Your task to perform on an android device: turn off location Image 0: 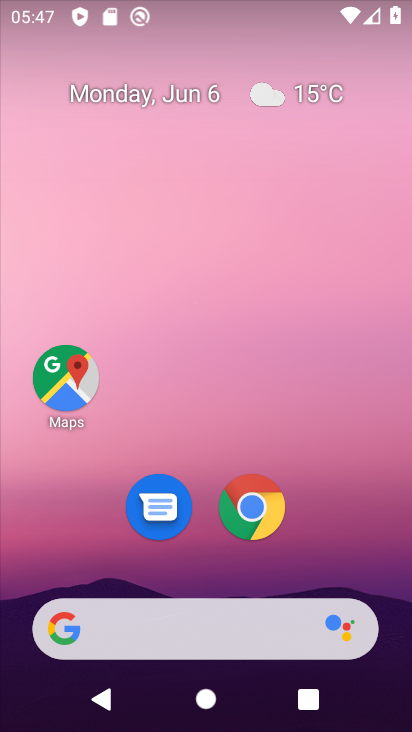
Step 0: drag from (193, 568) to (221, 0)
Your task to perform on an android device: turn off location Image 1: 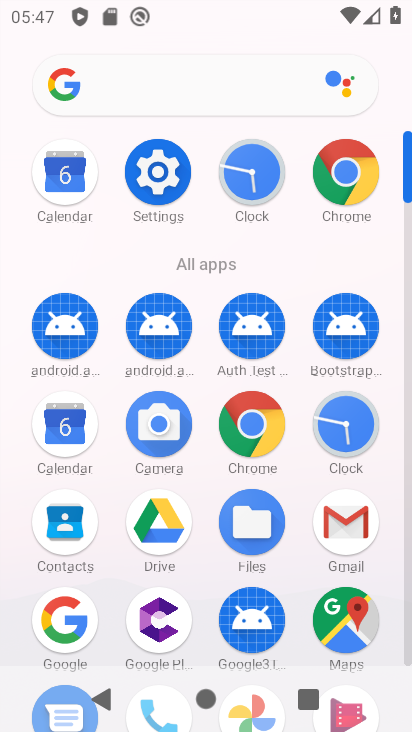
Step 1: click (158, 173)
Your task to perform on an android device: turn off location Image 2: 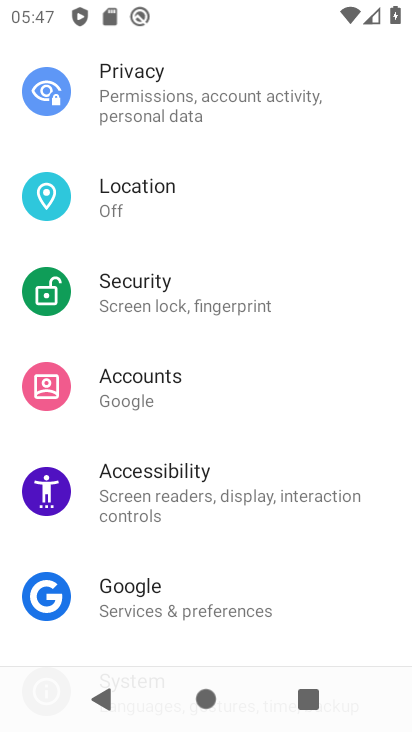
Step 2: click (144, 189)
Your task to perform on an android device: turn off location Image 3: 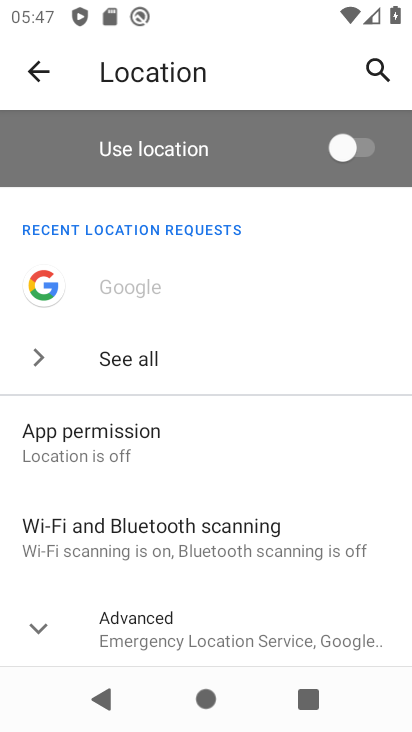
Step 3: task complete